Your task to perform on an android device: Open settings on Google Maps Image 0: 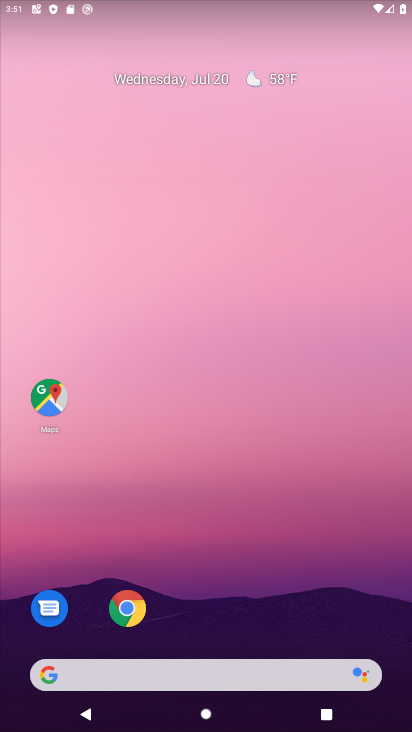
Step 0: click (63, 394)
Your task to perform on an android device: Open settings on Google Maps Image 1: 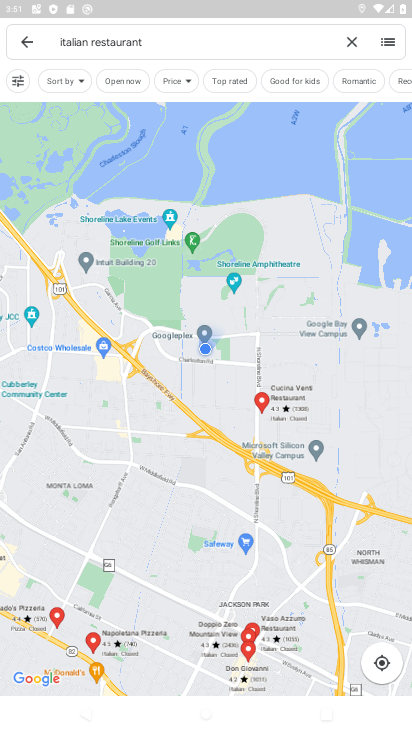
Step 1: task complete